Your task to perform on an android device: open a bookmark in the chrome app Image 0: 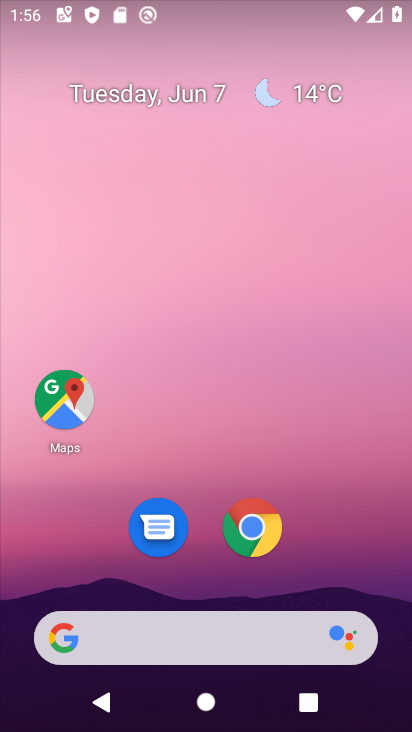
Step 0: click (262, 533)
Your task to perform on an android device: open a bookmark in the chrome app Image 1: 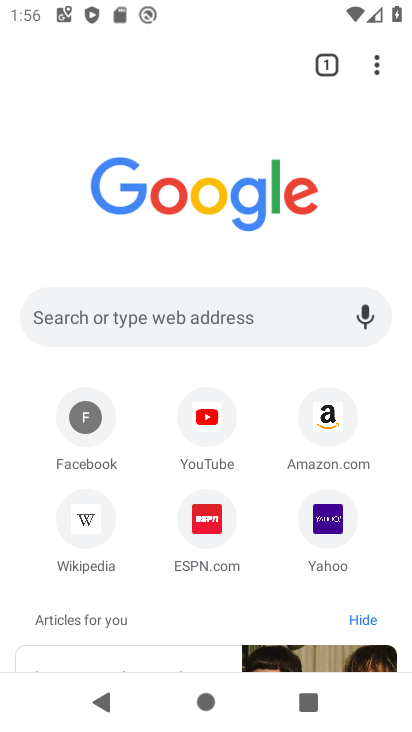
Step 1: click (384, 73)
Your task to perform on an android device: open a bookmark in the chrome app Image 2: 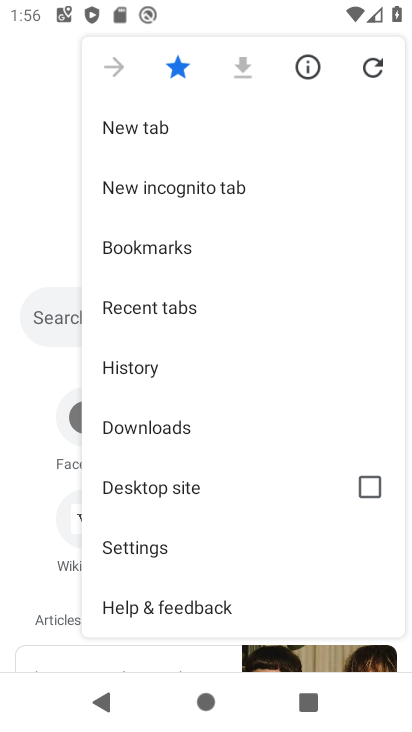
Step 2: click (234, 252)
Your task to perform on an android device: open a bookmark in the chrome app Image 3: 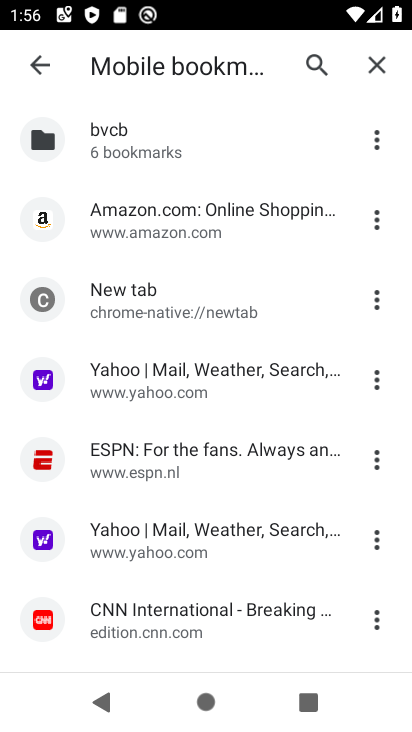
Step 3: click (260, 367)
Your task to perform on an android device: open a bookmark in the chrome app Image 4: 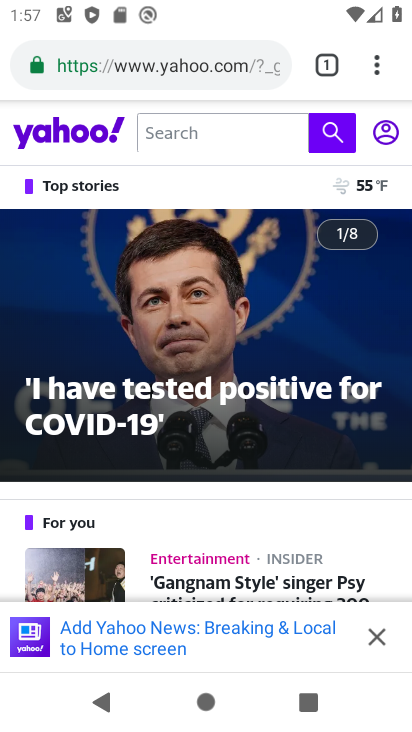
Step 4: task complete